Your task to perform on an android device: turn pop-ups off in chrome Image 0: 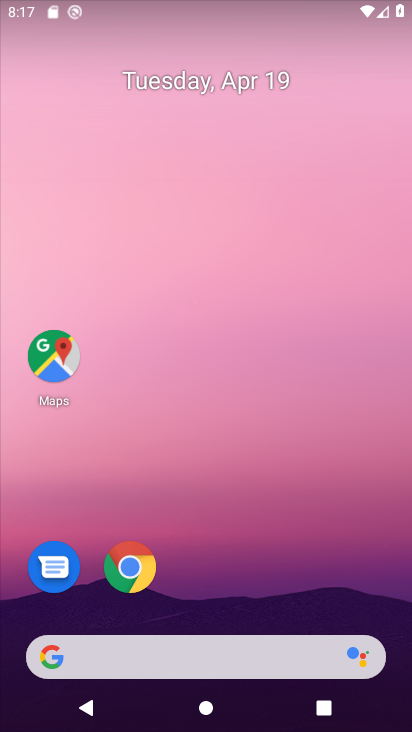
Step 0: drag from (292, 347) to (252, 0)
Your task to perform on an android device: turn pop-ups off in chrome Image 1: 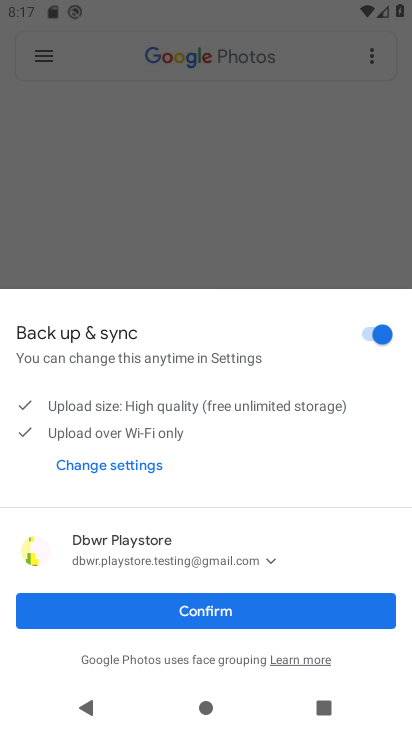
Step 1: press home button
Your task to perform on an android device: turn pop-ups off in chrome Image 2: 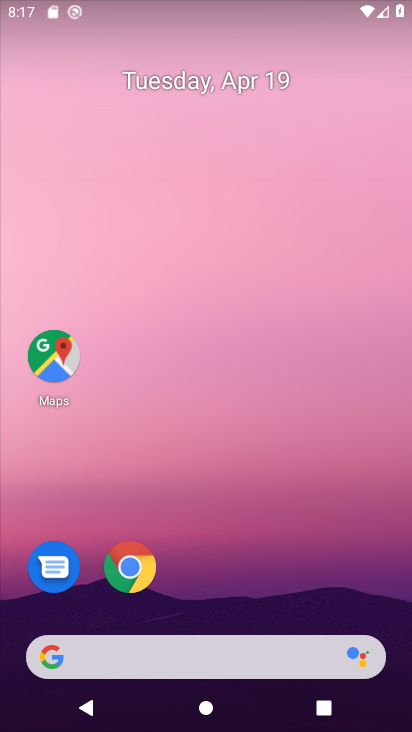
Step 2: click (111, 577)
Your task to perform on an android device: turn pop-ups off in chrome Image 3: 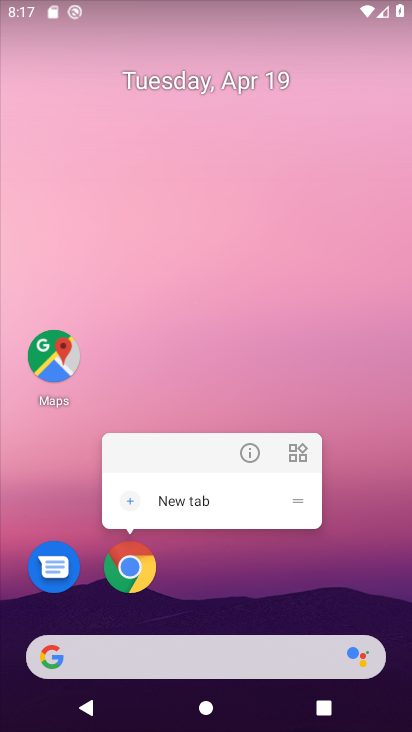
Step 3: click (111, 577)
Your task to perform on an android device: turn pop-ups off in chrome Image 4: 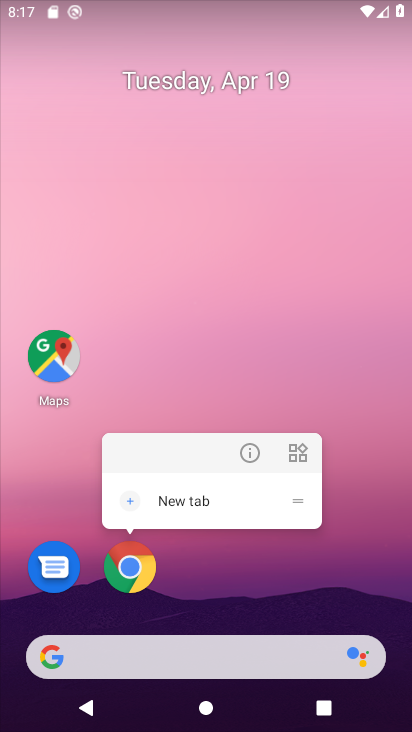
Step 4: click (111, 577)
Your task to perform on an android device: turn pop-ups off in chrome Image 5: 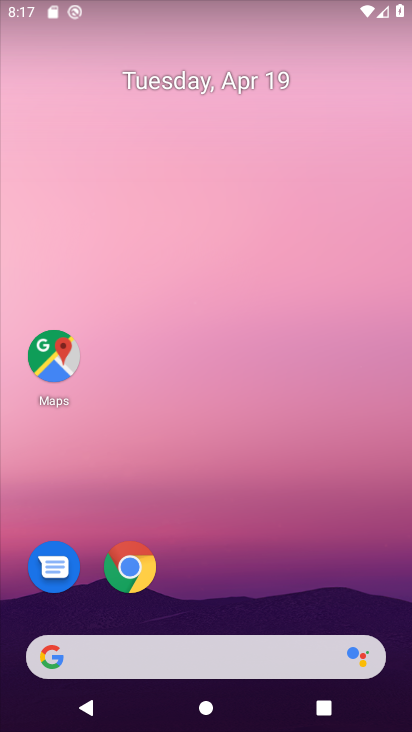
Step 5: click (133, 578)
Your task to perform on an android device: turn pop-ups off in chrome Image 6: 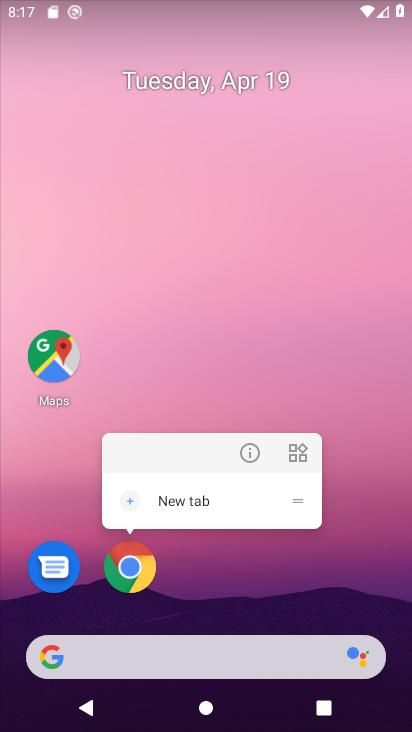
Step 6: click (133, 578)
Your task to perform on an android device: turn pop-ups off in chrome Image 7: 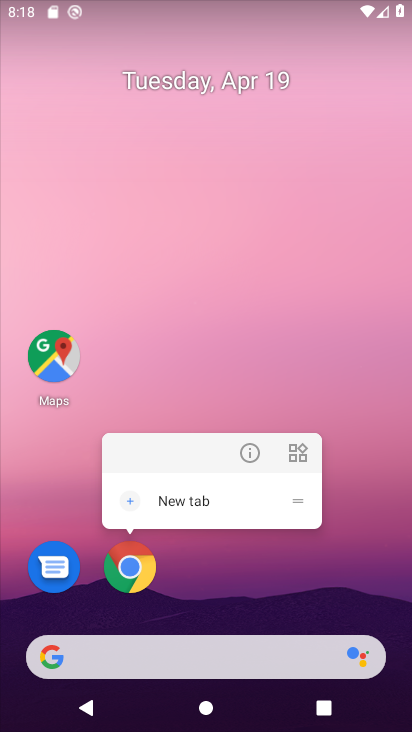
Step 7: drag from (259, 708) to (253, 143)
Your task to perform on an android device: turn pop-ups off in chrome Image 8: 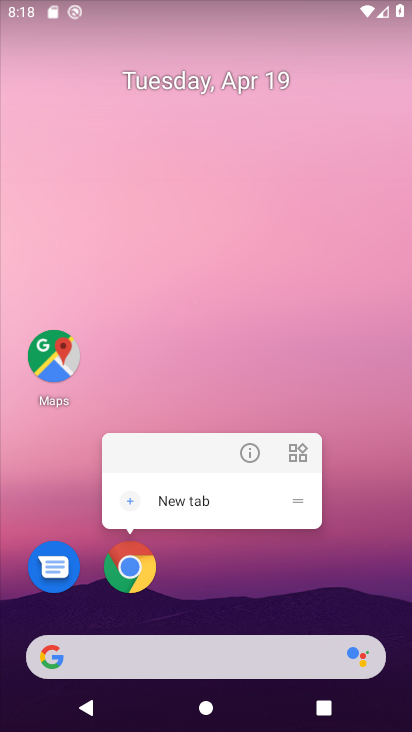
Step 8: drag from (236, 505) to (255, 35)
Your task to perform on an android device: turn pop-ups off in chrome Image 9: 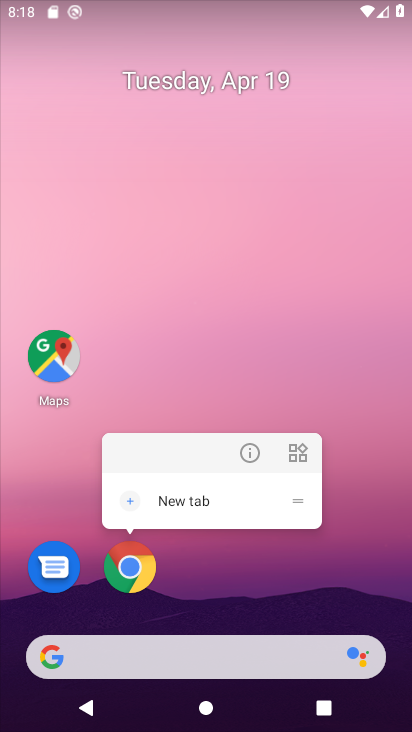
Step 9: click (274, 708)
Your task to perform on an android device: turn pop-ups off in chrome Image 10: 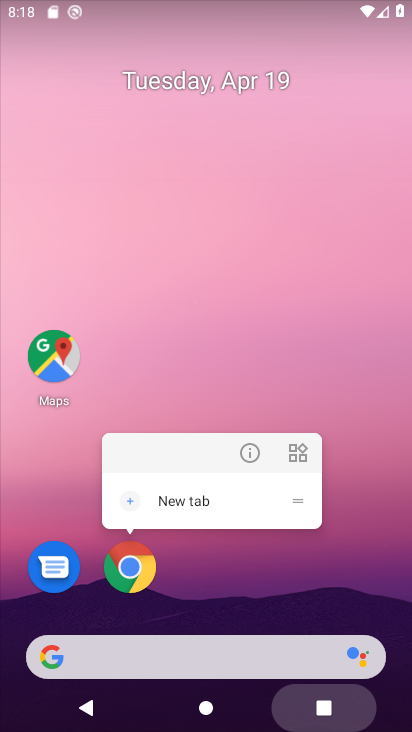
Step 10: drag from (264, 711) to (312, 0)
Your task to perform on an android device: turn pop-ups off in chrome Image 11: 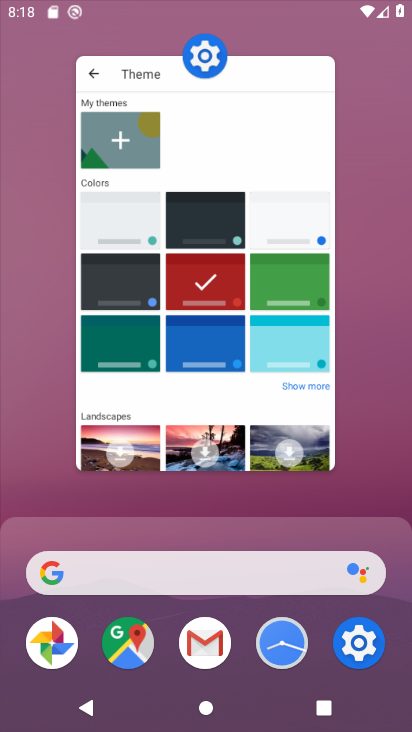
Step 11: click (206, 711)
Your task to perform on an android device: turn pop-ups off in chrome Image 12: 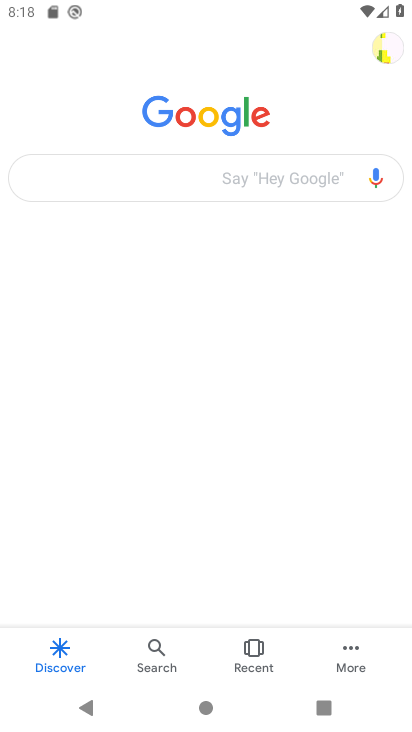
Step 12: click (206, 713)
Your task to perform on an android device: turn pop-ups off in chrome Image 13: 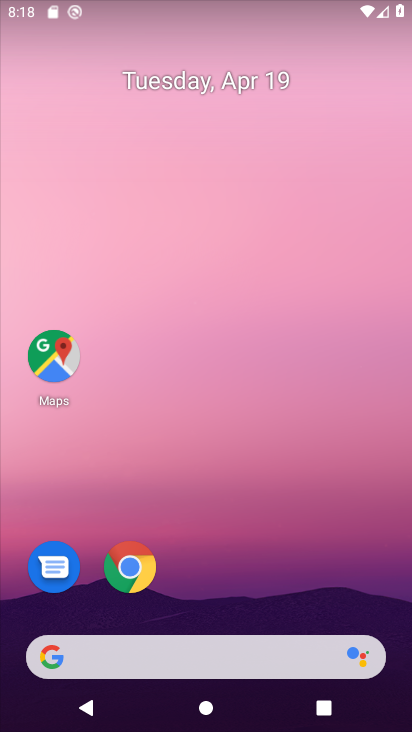
Step 13: drag from (260, 715) to (298, 4)
Your task to perform on an android device: turn pop-ups off in chrome Image 14: 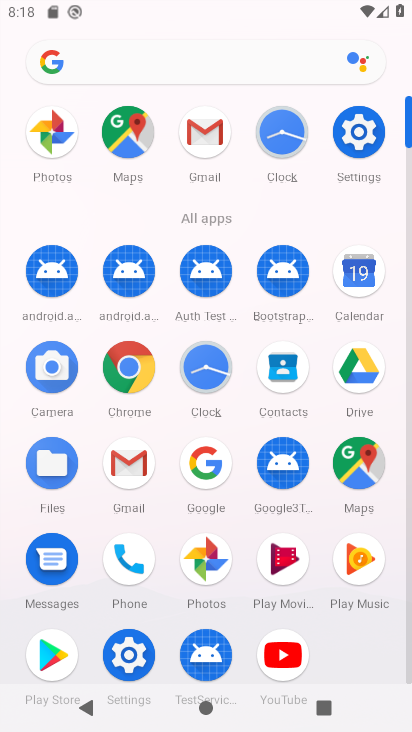
Step 14: click (131, 384)
Your task to perform on an android device: turn pop-ups off in chrome Image 15: 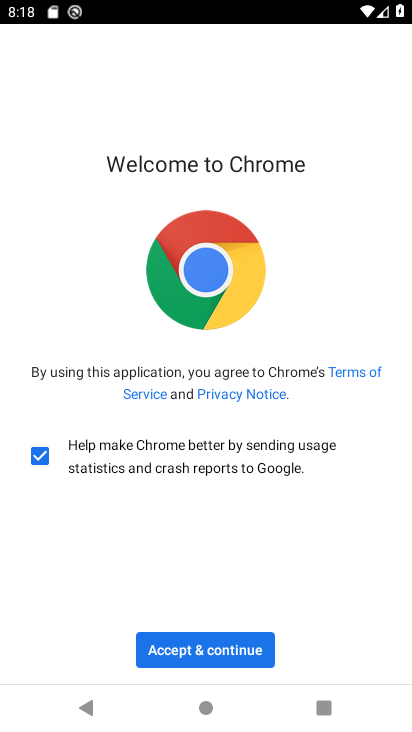
Step 15: click (217, 651)
Your task to perform on an android device: turn pop-ups off in chrome Image 16: 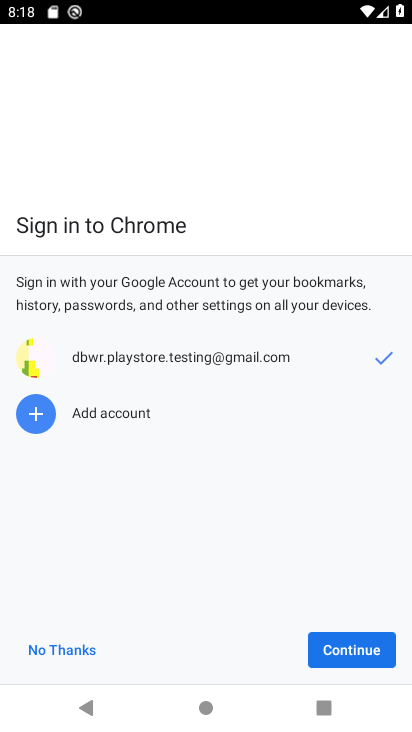
Step 16: click (345, 652)
Your task to perform on an android device: turn pop-ups off in chrome Image 17: 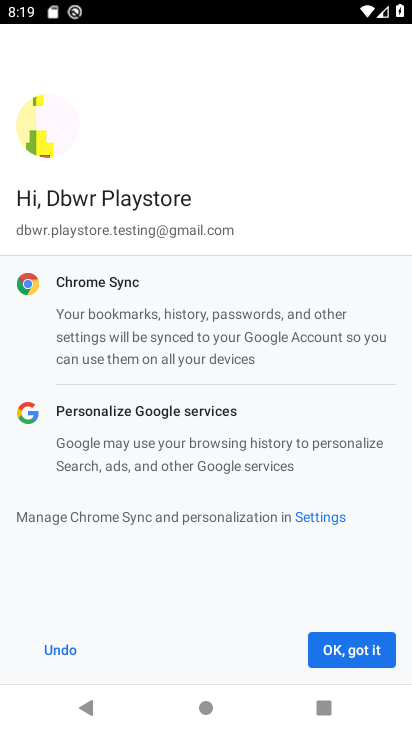
Step 17: click (364, 655)
Your task to perform on an android device: turn pop-ups off in chrome Image 18: 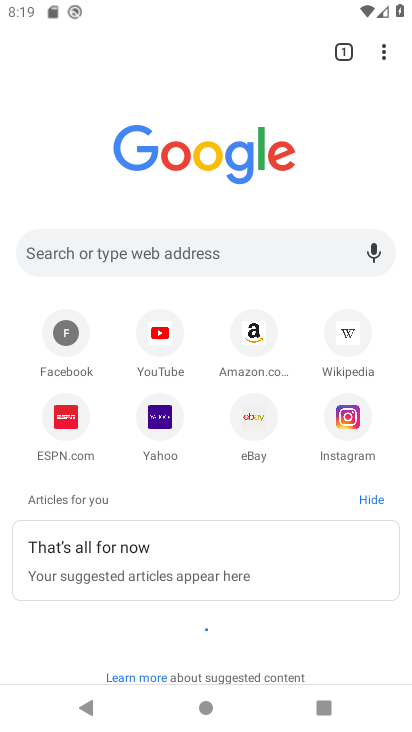
Step 18: click (386, 47)
Your task to perform on an android device: turn pop-ups off in chrome Image 19: 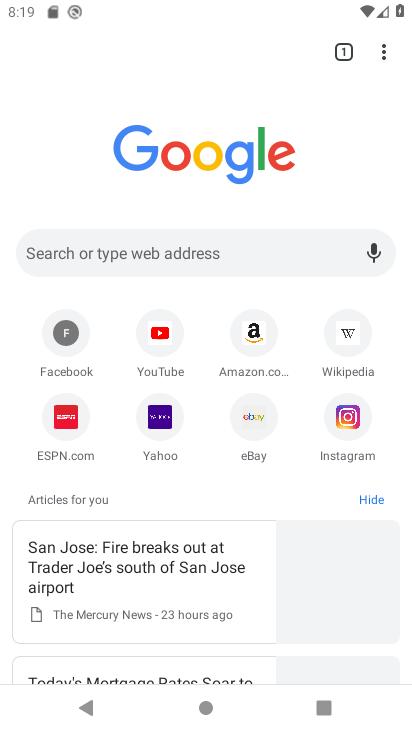
Step 19: click (385, 47)
Your task to perform on an android device: turn pop-ups off in chrome Image 20: 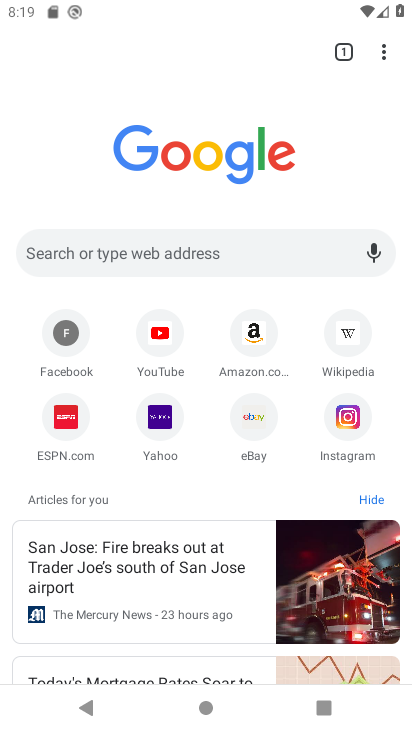
Step 20: click (385, 47)
Your task to perform on an android device: turn pop-ups off in chrome Image 21: 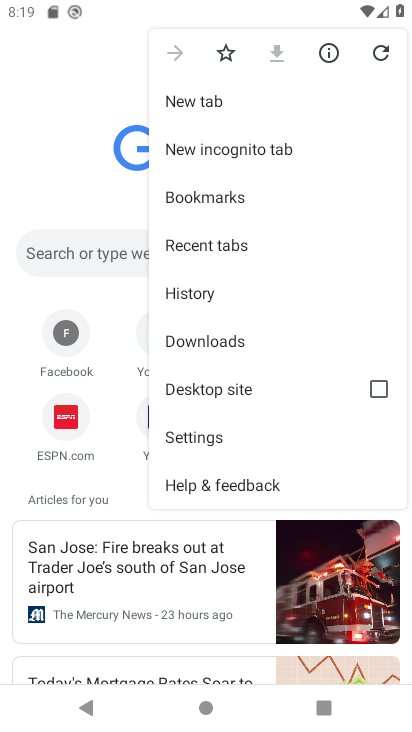
Step 21: click (228, 438)
Your task to perform on an android device: turn pop-ups off in chrome Image 22: 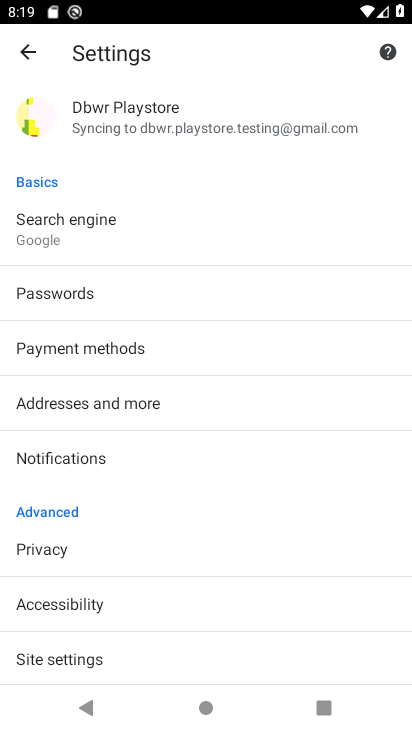
Step 22: click (119, 663)
Your task to perform on an android device: turn pop-ups off in chrome Image 23: 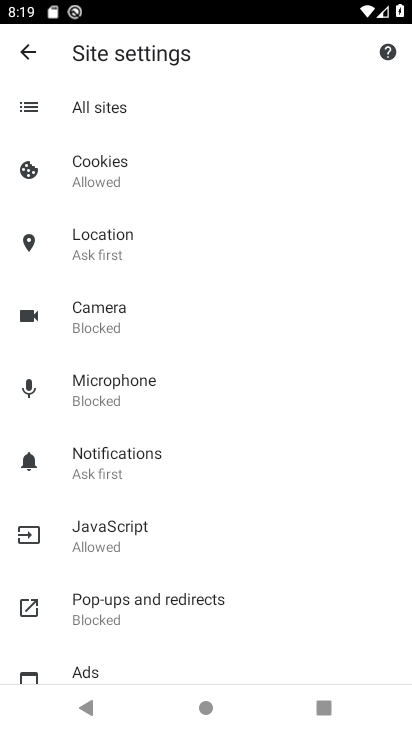
Step 23: click (183, 587)
Your task to perform on an android device: turn pop-ups off in chrome Image 24: 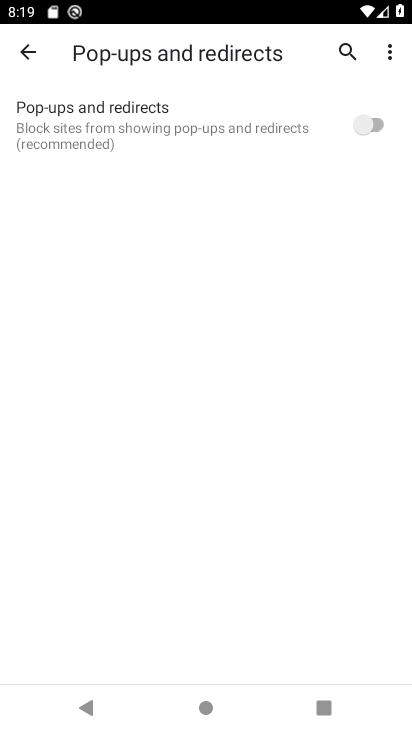
Step 24: task complete